Your task to perform on an android device: make emails show in primary in the gmail app Image 0: 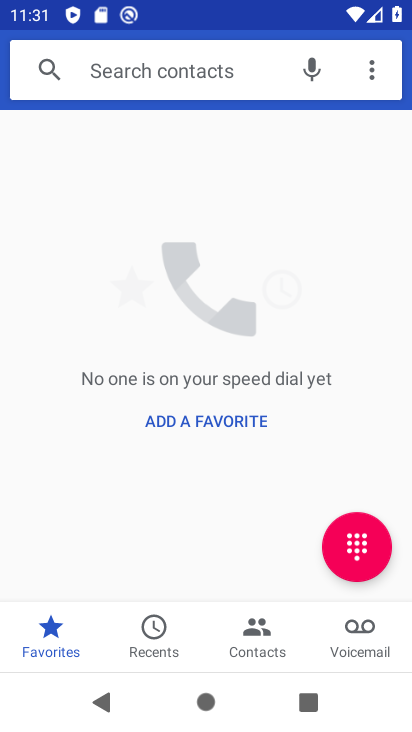
Step 0: press home button
Your task to perform on an android device: make emails show in primary in the gmail app Image 1: 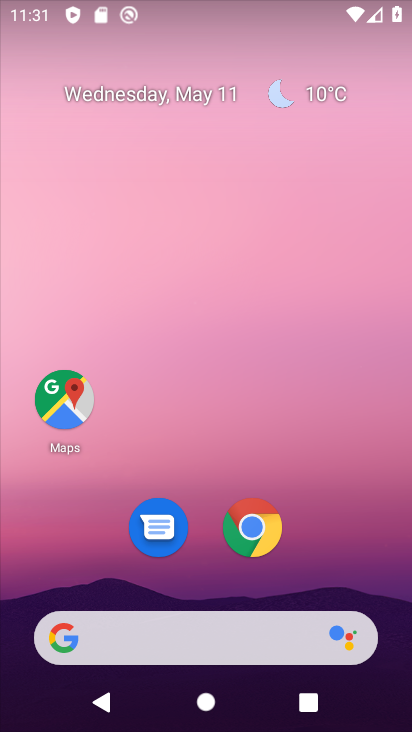
Step 1: drag from (205, 599) to (267, 21)
Your task to perform on an android device: make emails show in primary in the gmail app Image 2: 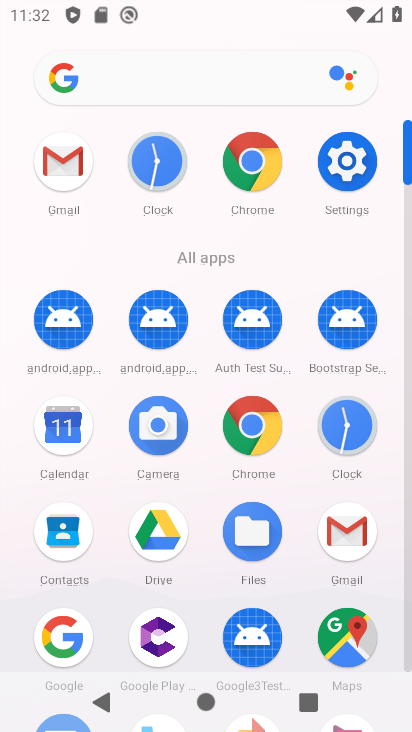
Step 2: click (355, 547)
Your task to perform on an android device: make emails show in primary in the gmail app Image 3: 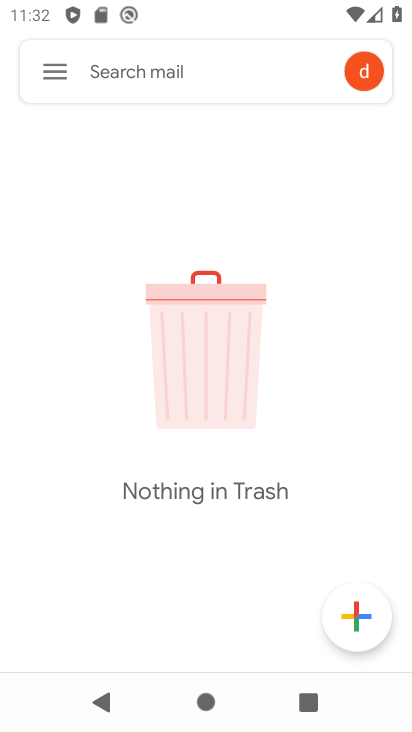
Step 3: click (55, 75)
Your task to perform on an android device: make emails show in primary in the gmail app Image 4: 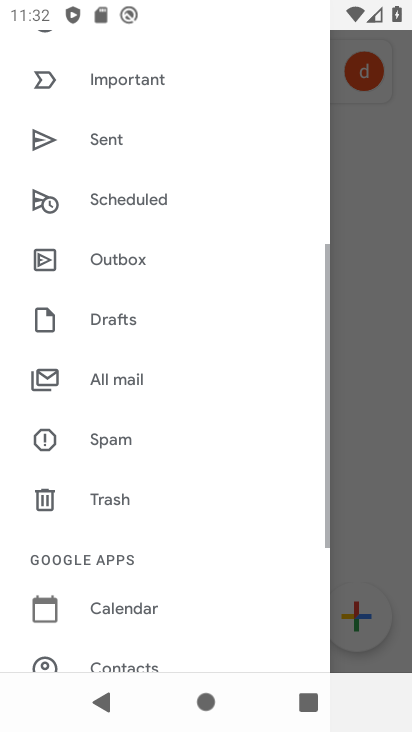
Step 4: drag from (120, 599) to (181, 157)
Your task to perform on an android device: make emails show in primary in the gmail app Image 5: 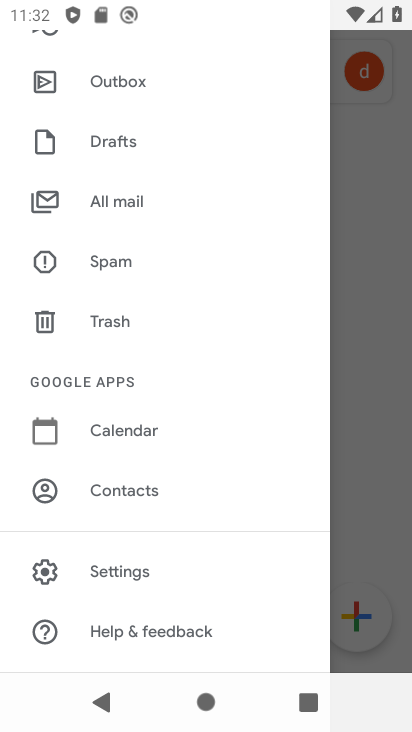
Step 5: click (131, 567)
Your task to perform on an android device: make emails show in primary in the gmail app Image 6: 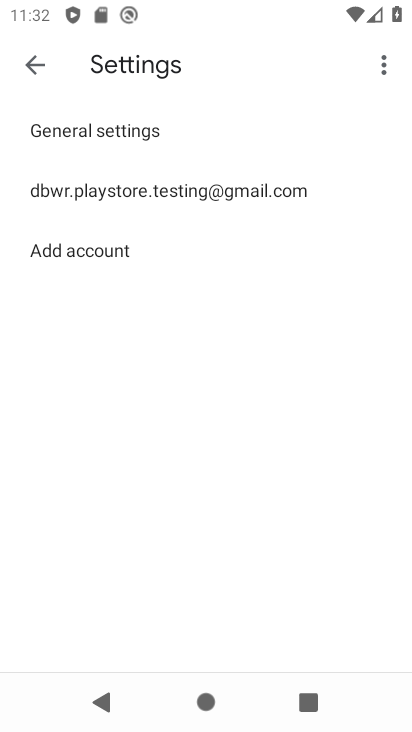
Step 6: click (144, 181)
Your task to perform on an android device: make emails show in primary in the gmail app Image 7: 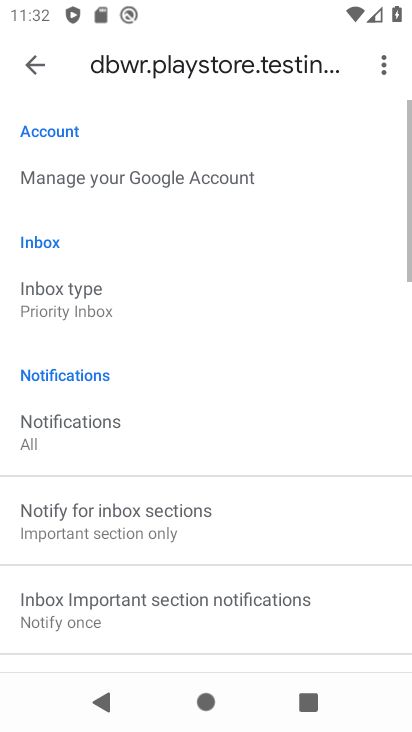
Step 7: click (99, 306)
Your task to perform on an android device: make emails show in primary in the gmail app Image 8: 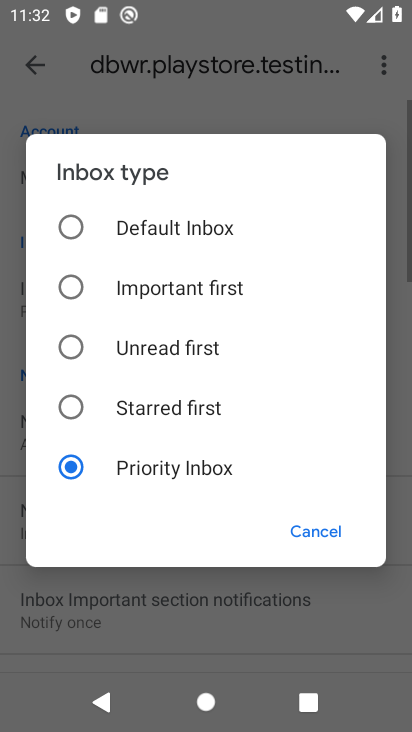
Step 8: click (99, 242)
Your task to perform on an android device: make emails show in primary in the gmail app Image 9: 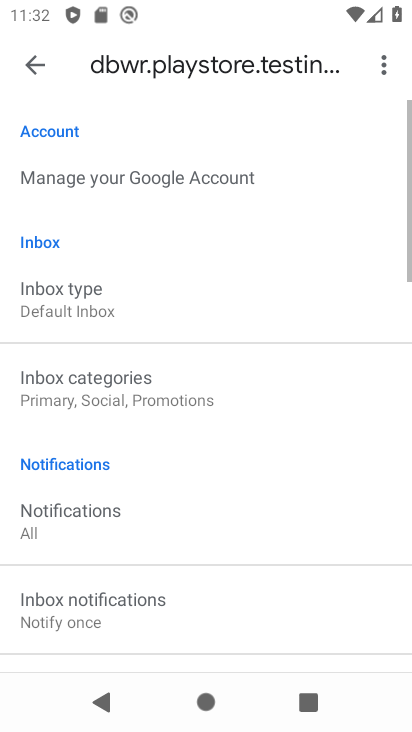
Step 9: click (111, 402)
Your task to perform on an android device: make emails show in primary in the gmail app Image 10: 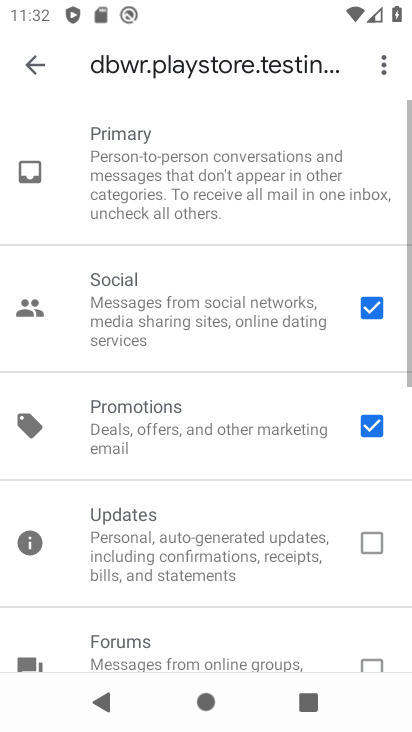
Step 10: click (381, 436)
Your task to perform on an android device: make emails show in primary in the gmail app Image 11: 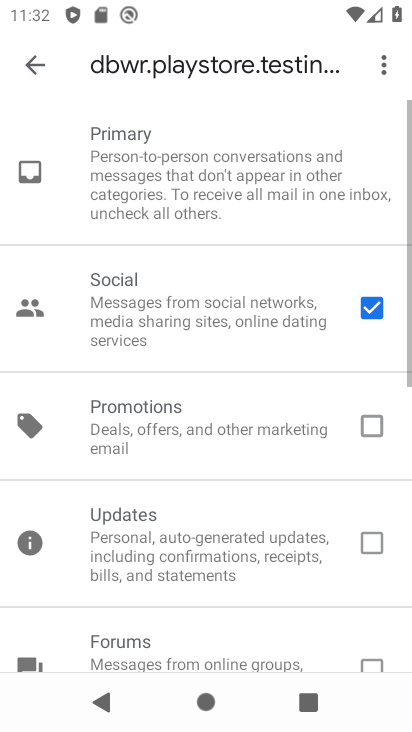
Step 11: click (365, 296)
Your task to perform on an android device: make emails show in primary in the gmail app Image 12: 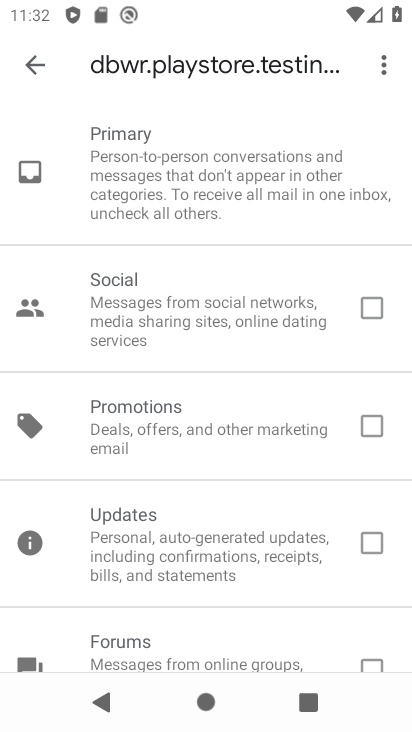
Step 12: task complete